Your task to perform on an android device: open chrome and create a bookmark for the current page Image 0: 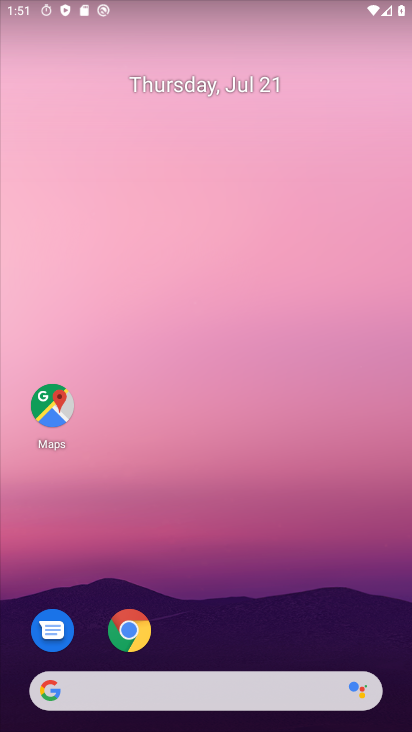
Step 0: click (129, 633)
Your task to perform on an android device: open chrome and create a bookmark for the current page Image 1: 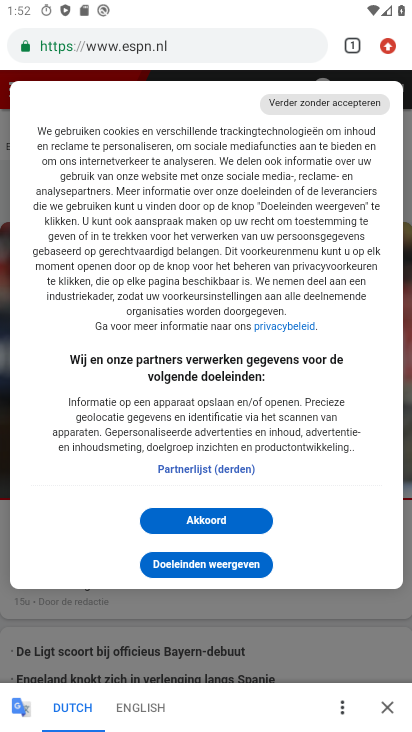
Step 1: click (381, 46)
Your task to perform on an android device: open chrome and create a bookmark for the current page Image 2: 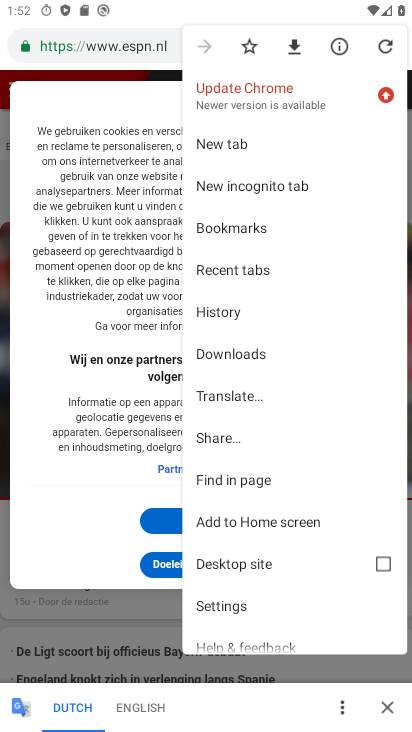
Step 2: click (251, 51)
Your task to perform on an android device: open chrome and create a bookmark for the current page Image 3: 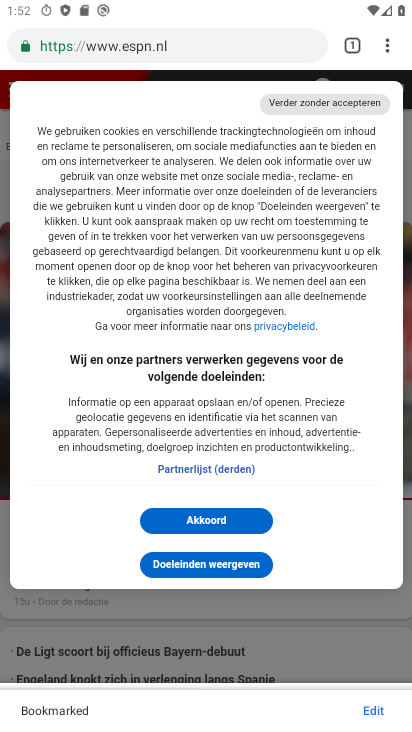
Step 3: task complete